Your task to perform on an android device: Open sound settings Image 0: 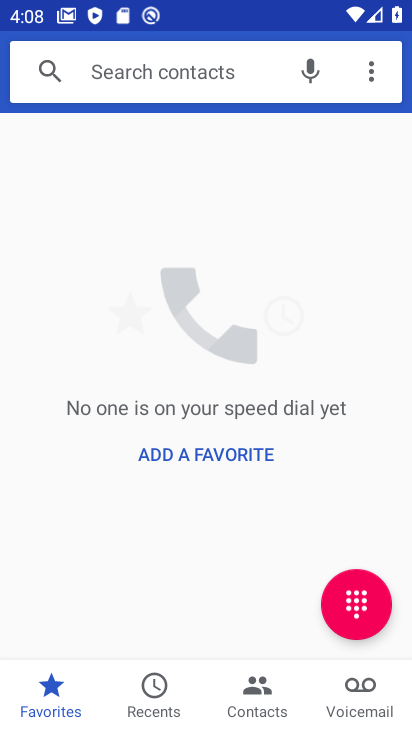
Step 0: press home button
Your task to perform on an android device: Open sound settings Image 1: 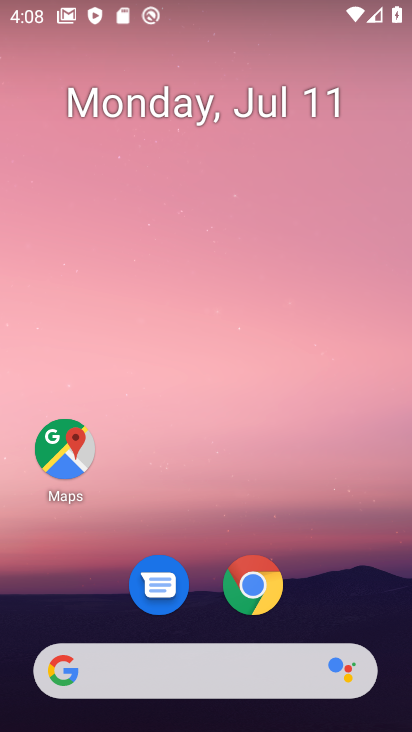
Step 1: drag from (212, 491) to (240, 0)
Your task to perform on an android device: Open sound settings Image 2: 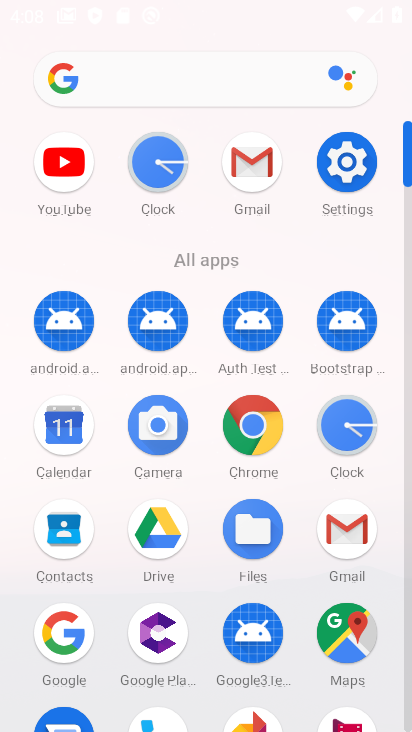
Step 2: click (355, 169)
Your task to perform on an android device: Open sound settings Image 3: 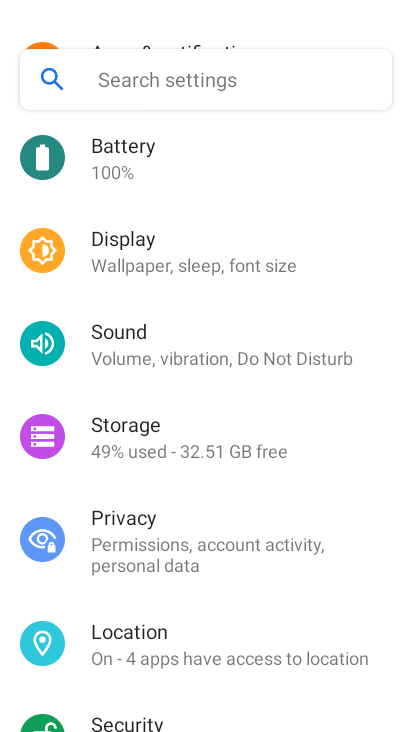
Step 3: click (219, 347)
Your task to perform on an android device: Open sound settings Image 4: 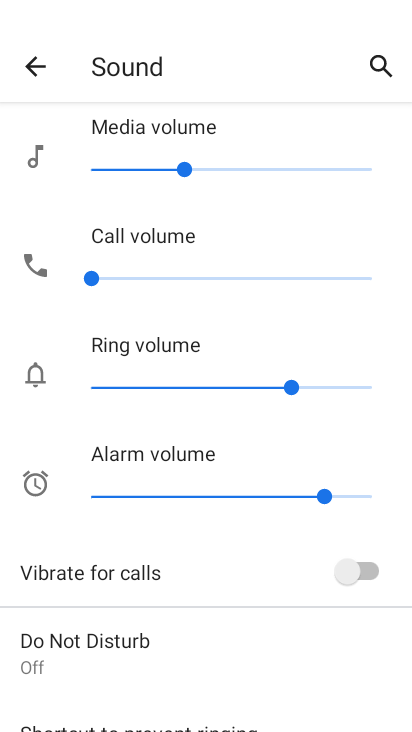
Step 4: task complete